Your task to perform on an android device: Go to location settings Image 0: 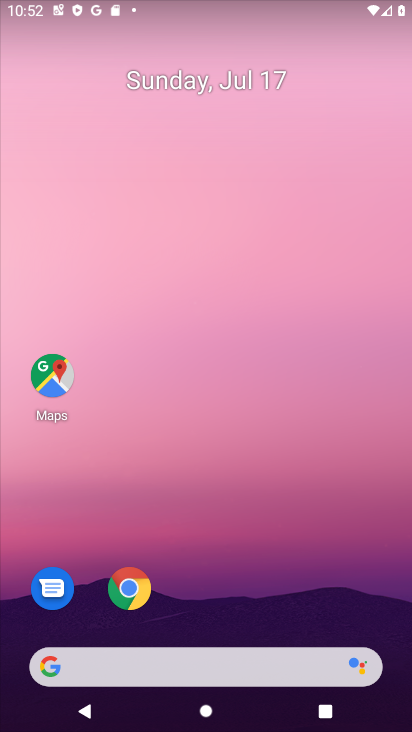
Step 0: press home button
Your task to perform on an android device: Go to location settings Image 1: 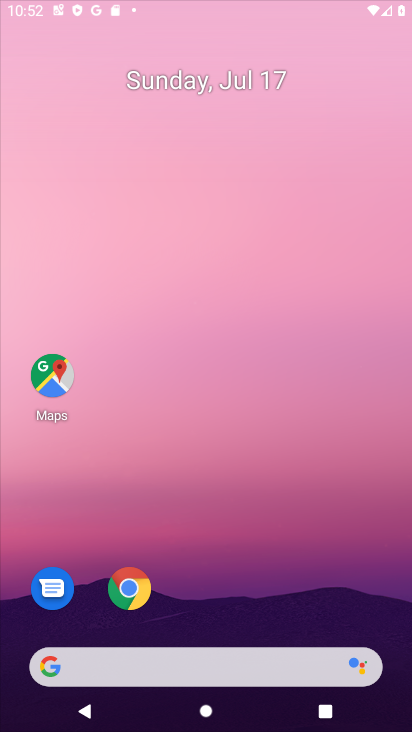
Step 1: drag from (211, 630) to (241, 0)
Your task to perform on an android device: Go to location settings Image 2: 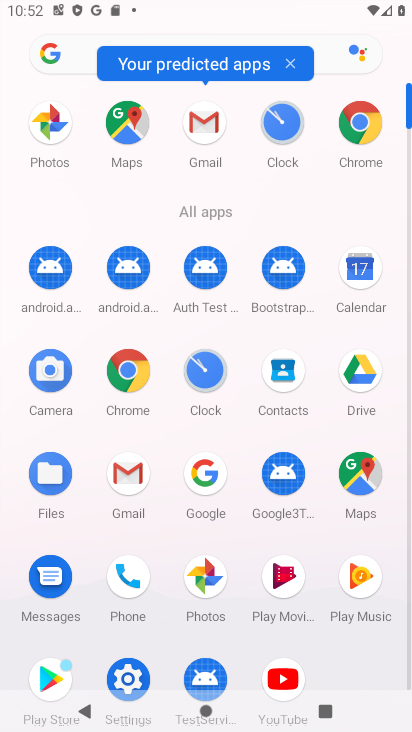
Step 2: click (126, 670)
Your task to perform on an android device: Go to location settings Image 3: 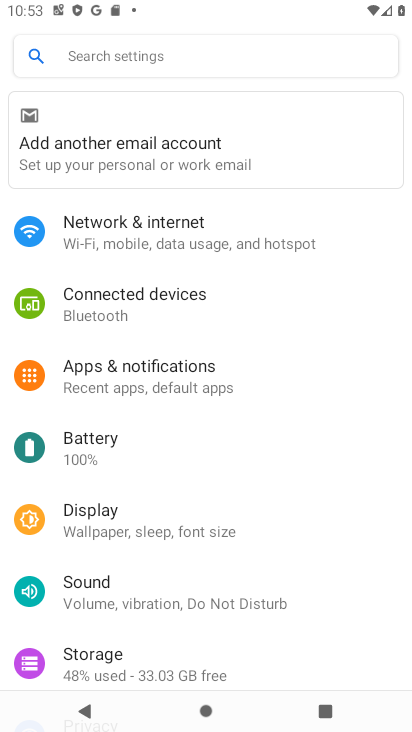
Step 3: drag from (198, 640) to (220, 186)
Your task to perform on an android device: Go to location settings Image 4: 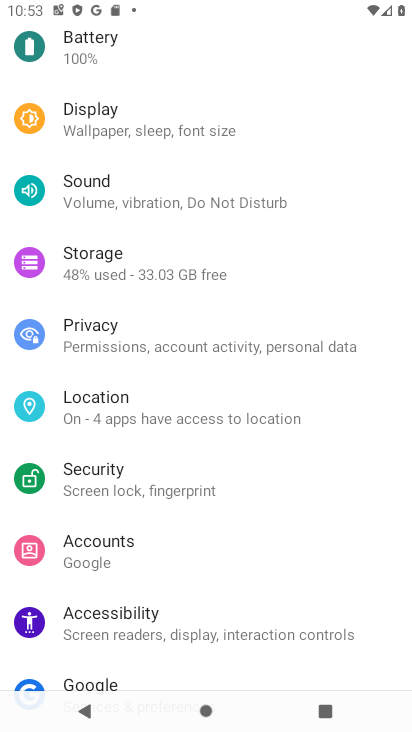
Step 4: click (142, 401)
Your task to perform on an android device: Go to location settings Image 5: 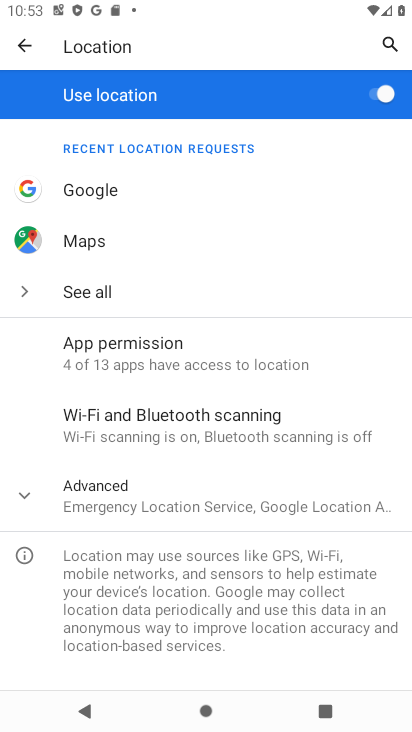
Step 5: click (22, 492)
Your task to perform on an android device: Go to location settings Image 6: 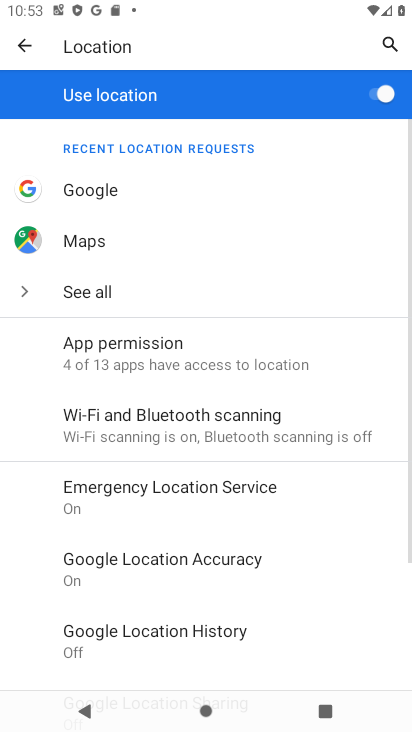
Step 6: task complete